Your task to perform on an android device: Open Yahoo.com Image 0: 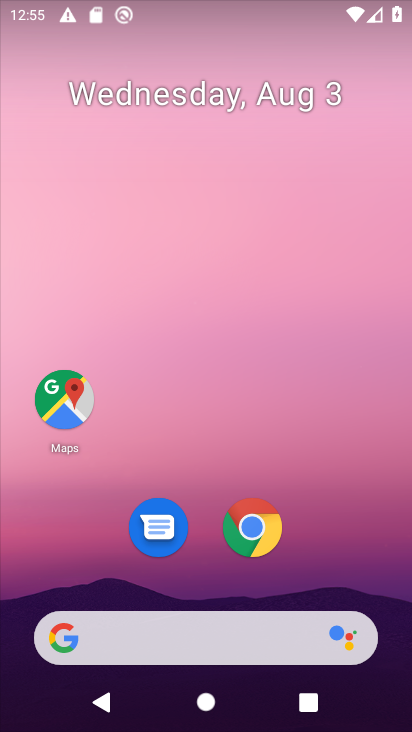
Step 0: click (110, 631)
Your task to perform on an android device: Open Yahoo.com Image 1: 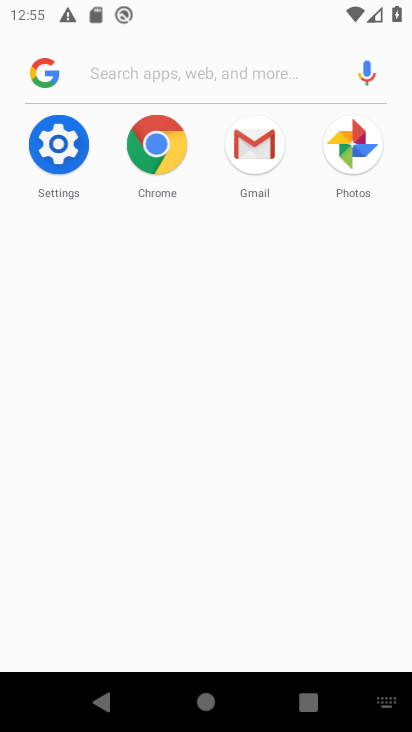
Step 1: type "Yahoo.com"
Your task to perform on an android device: Open Yahoo.com Image 2: 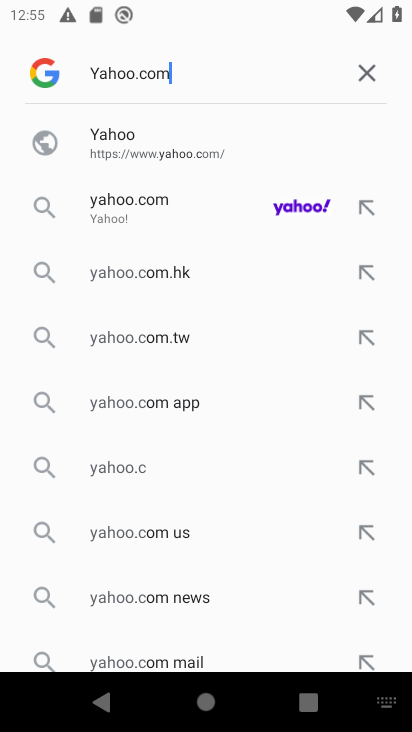
Step 2: type ""
Your task to perform on an android device: Open Yahoo.com Image 3: 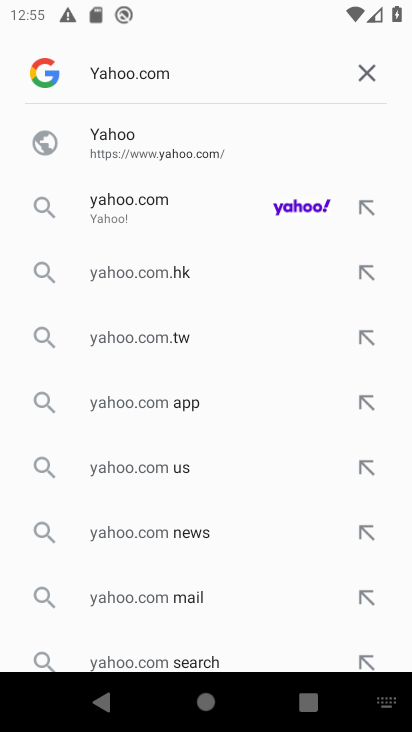
Step 3: click (152, 209)
Your task to perform on an android device: Open Yahoo.com Image 4: 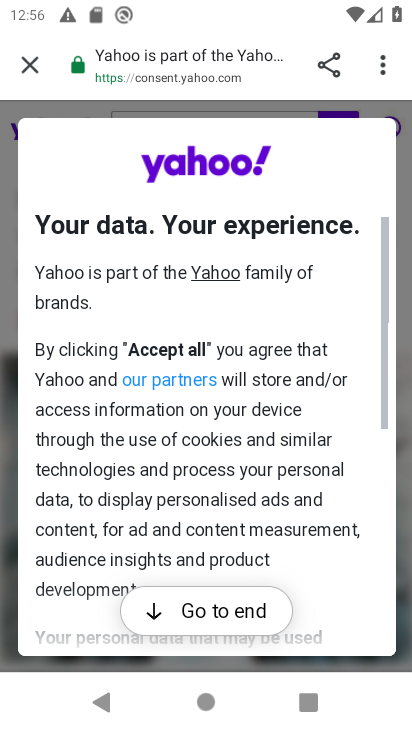
Step 4: task complete